Your task to perform on an android device: Open wifi settings Image 0: 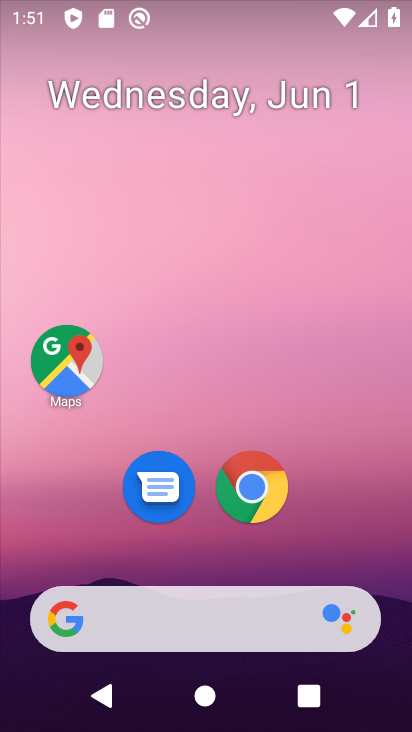
Step 0: drag from (379, 507) to (354, 127)
Your task to perform on an android device: Open wifi settings Image 1: 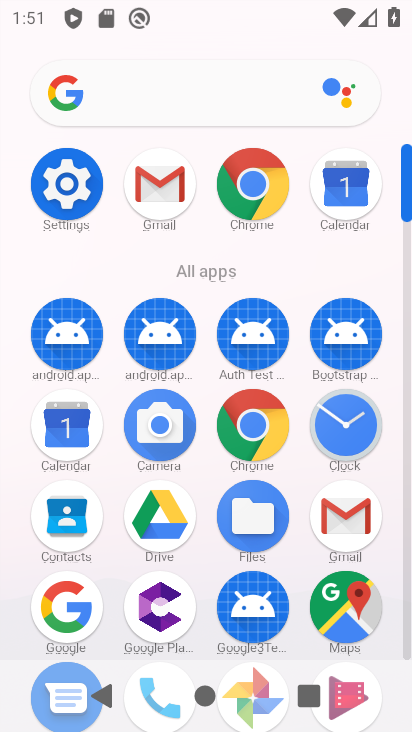
Step 1: click (64, 209)
Your task to perform on an android device: Open wifi settings Image 2: 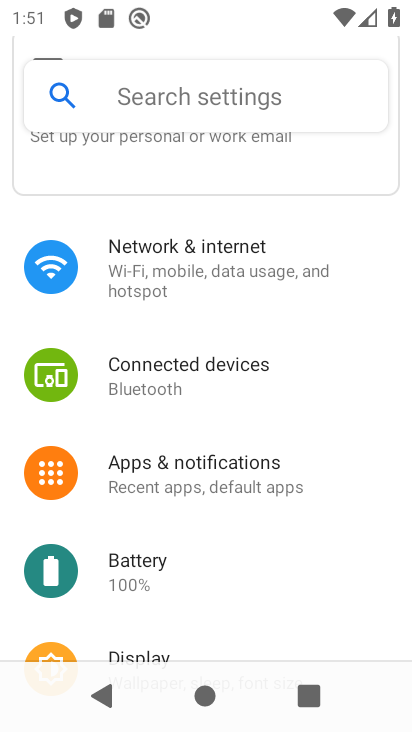
Step 2: drag from (319, 464) to (329, 385)
Your task to perform on an android device: Open wifi settings Image 3: 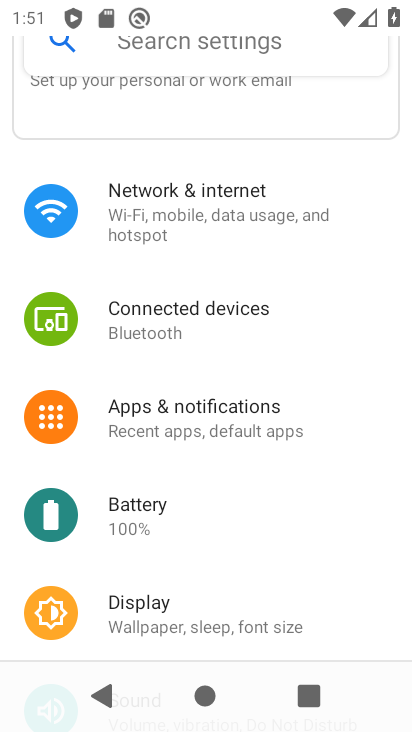
Step 3: drag from (339, 447) to (338, 327)
Your task to perform on an android device: Open wifi settings Image 4: 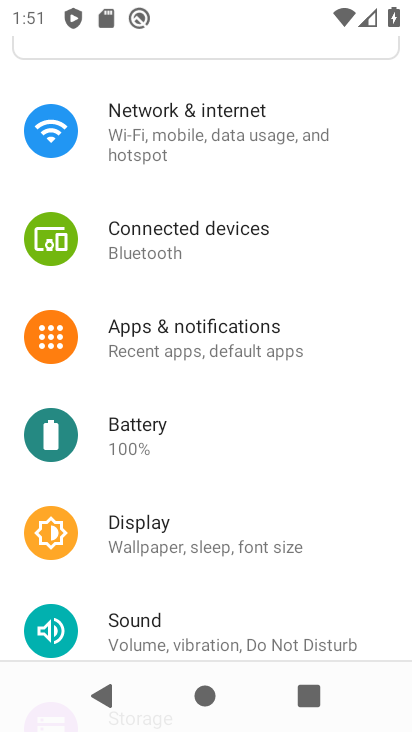
Step 4: drag from (333, 454) to (333, 352)
Your task to perform on an android device: Open wifi settings Image 5: 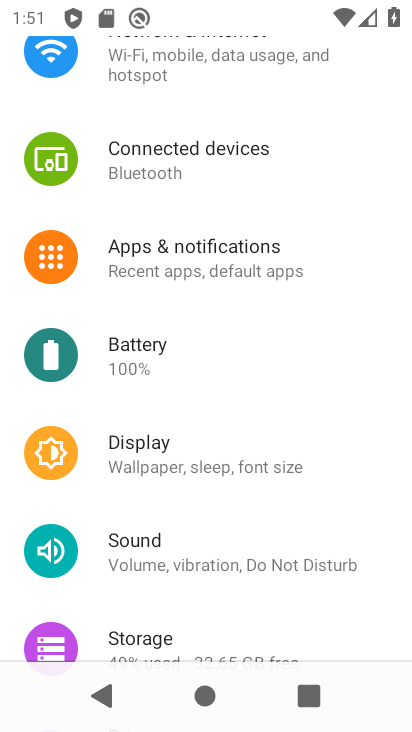
Step 5: drag from (299, 498) to (326, 333)
Your task to perform on an android device: Open wifi settings Image 6: 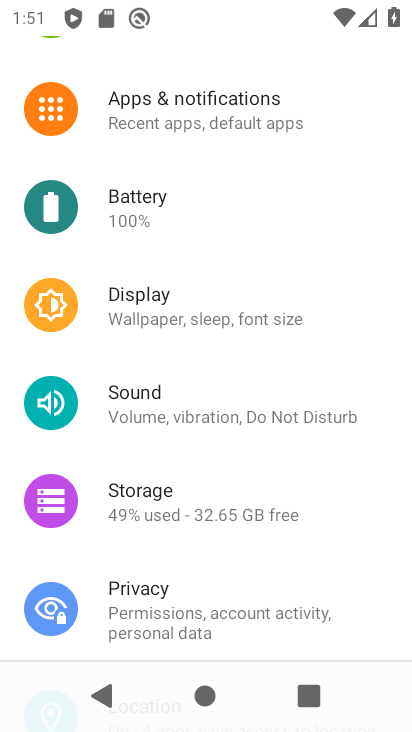
Step 6: drag from (345, 235) to (343, 326)
Your task to perform on an android device: Open wifi settings Image 7: 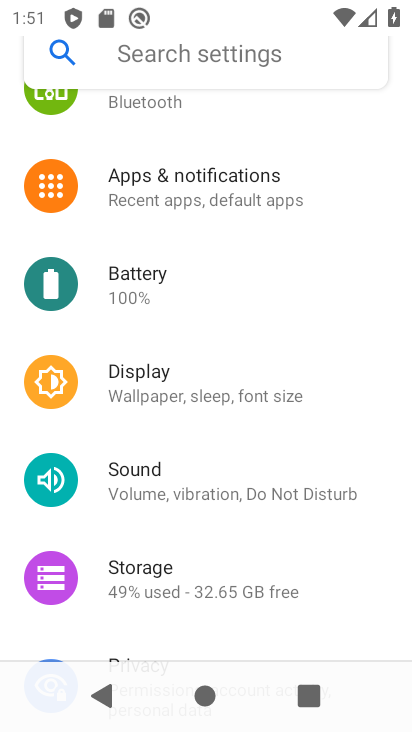
Step 7: drag from (343, 246) to (322, 407)
Your task to perform on an android device: Open wifi settings Image 8: 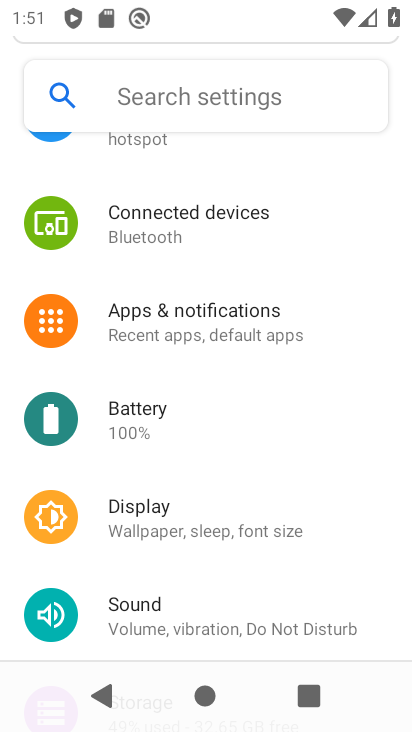
Step 8: drag from (332, 287) to (306, 443)
Your task to perform on an android device: Open wifi settings Image 9: 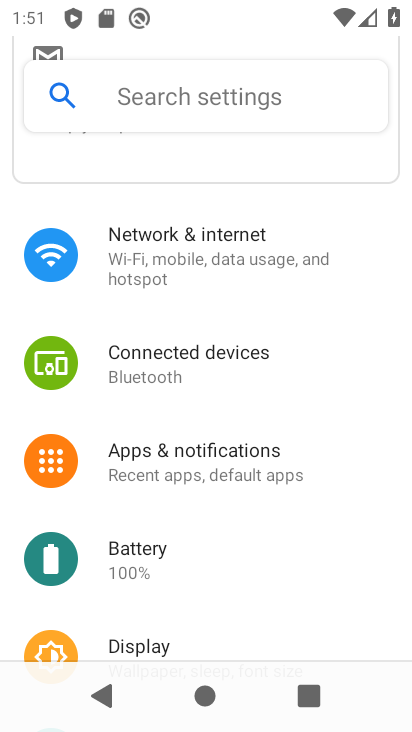
Step 9: drag from (332, 275) to (313, 403)
Your task to perform on an android device: Open wifi settings Image 10: 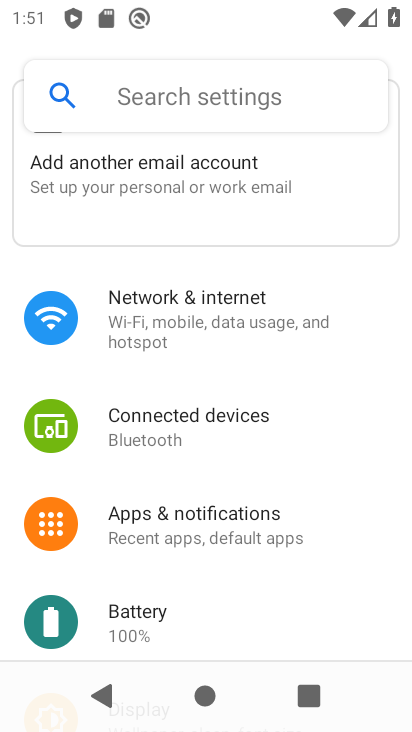
Step 10: click (311, 329)
Your task to perform on an android device: Open wifi settings Image 11: 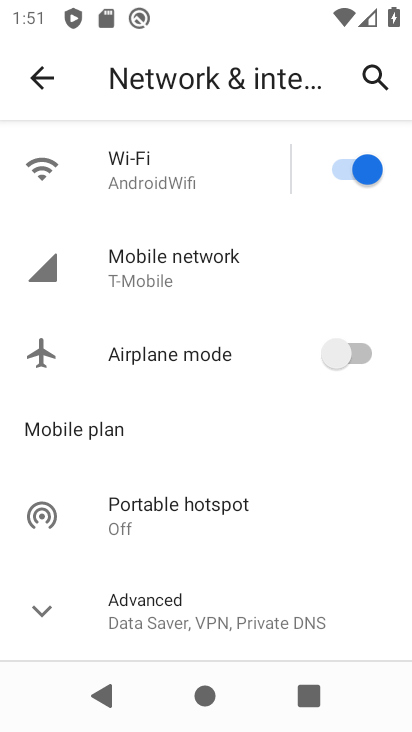
Step 11: click (162, 145)
Your task to perform on an android device: Open wifi settings Image 12: 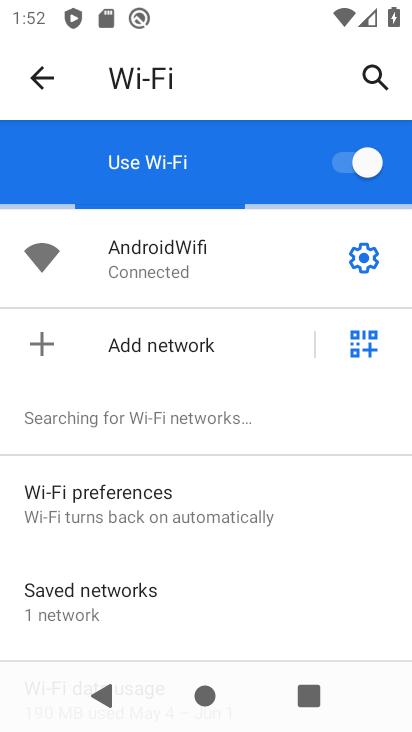
Step 12: task complete